Your task to perform on an android device: Go to Amazon Image 0: 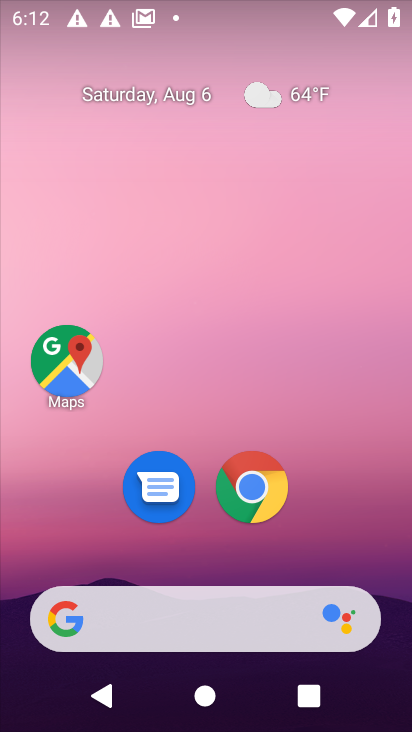
Step 0: click (259, 502)
Your task to perform on an android device: Go to Amazon Image 1: 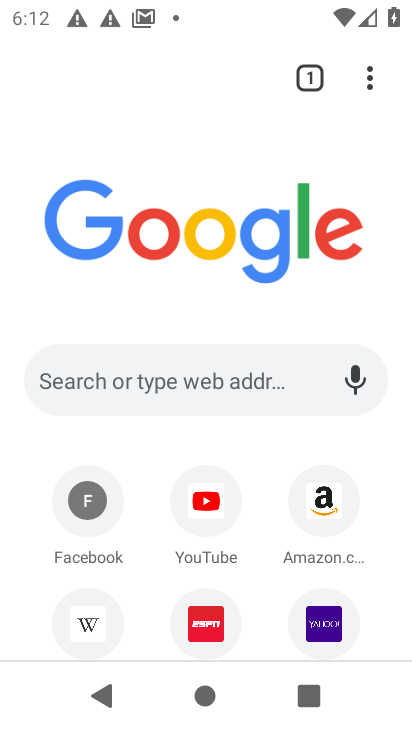
Step 1: click (335, 499)
Your task to perform on an android device: Go to Amazon Image 2: 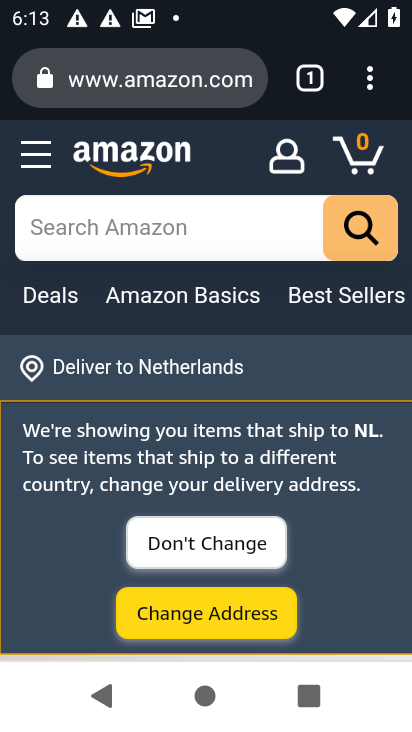
Step 2: task complete